Your task to perform on an android device: change text size in settings app Image 0: 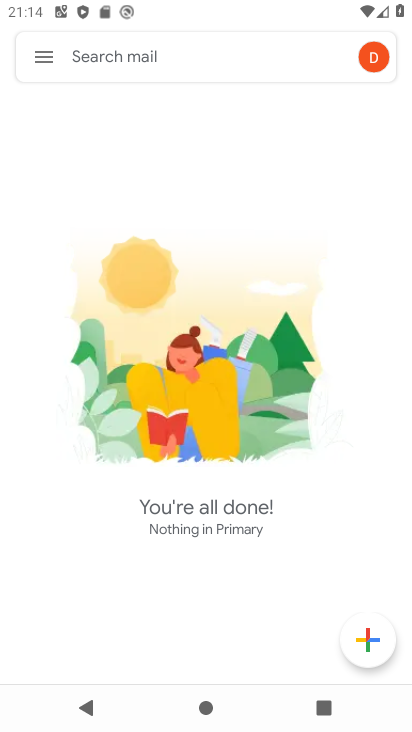
Step 0: press home button
Your task to perform on an android device: change text size in settings app Image 1: 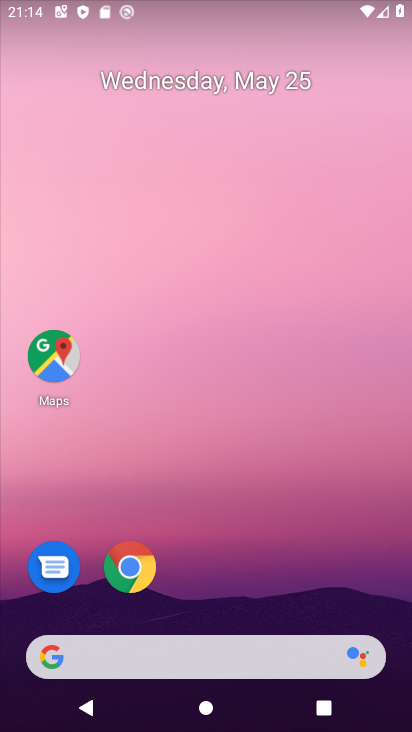
Step 1: drag from (251, 463) to (250, 19)
Your task to perform on an android device: change text size in settings app Image 2: 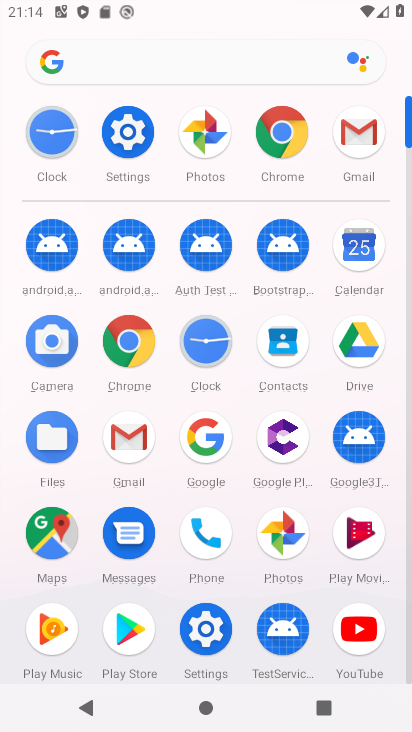
Step 2: click (137, 130)
Your task to perform on an android device: change text size in settings app Image 3: 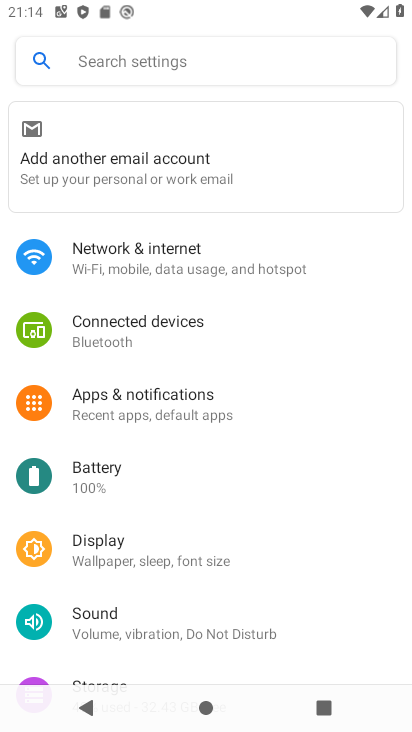
Step 3: click (152, 557)
Your task to perform on an android device: change text size in settings app Image 4: 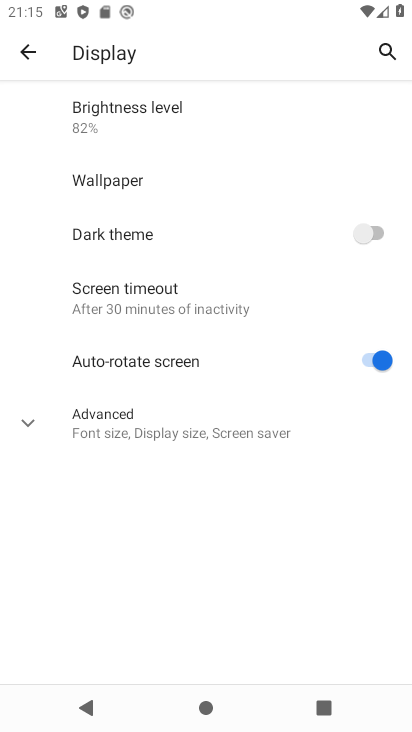
Step 4: click (29, 417)
Your task to perform on an android device: change text size in settings app Image 5: 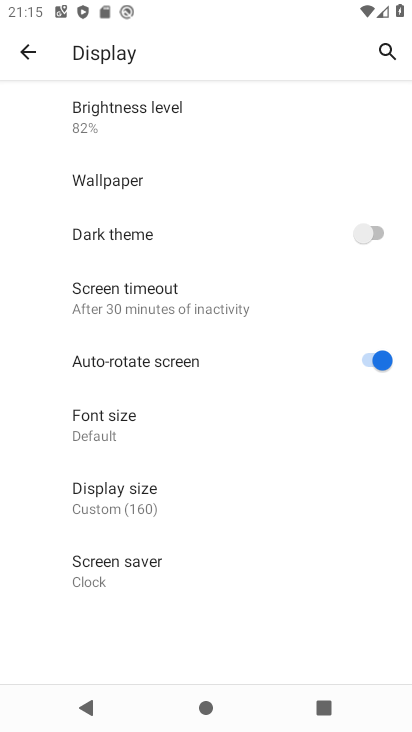
Step 5: click (113, 423)
Your task to perform on an android device: change text size in settings app Image 6: 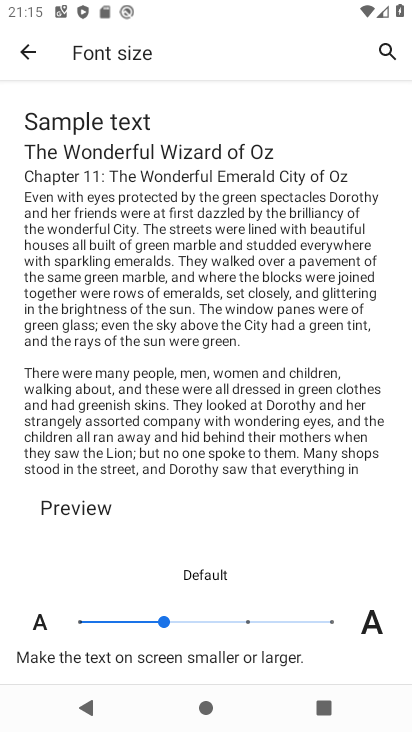
Step 6: click (247, 613)
Your task to perform on an android device: change text size in settings app Image 7: 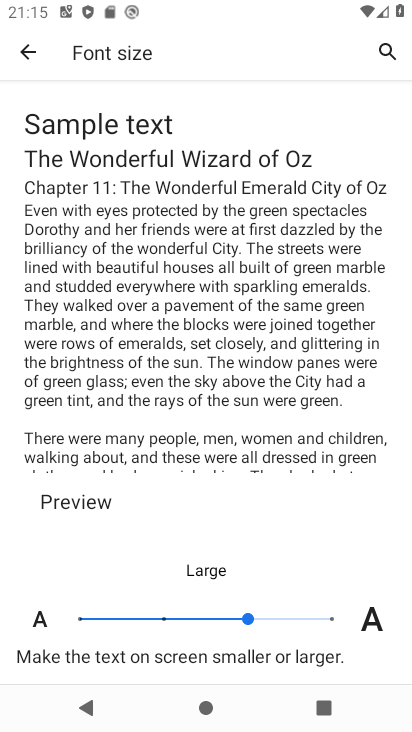
Step 7: task complete